Your task to perform on an android device: open a new tab in the chrome app Image 0: 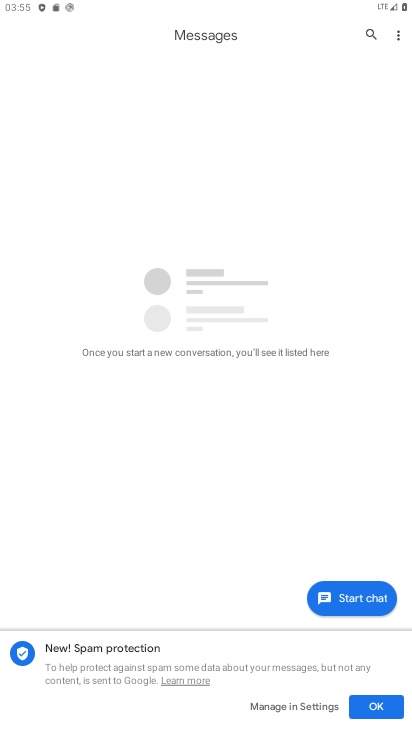
Step 0: press home button
Your task to perform on an android device: open a new tab in the chrome app Image 1: 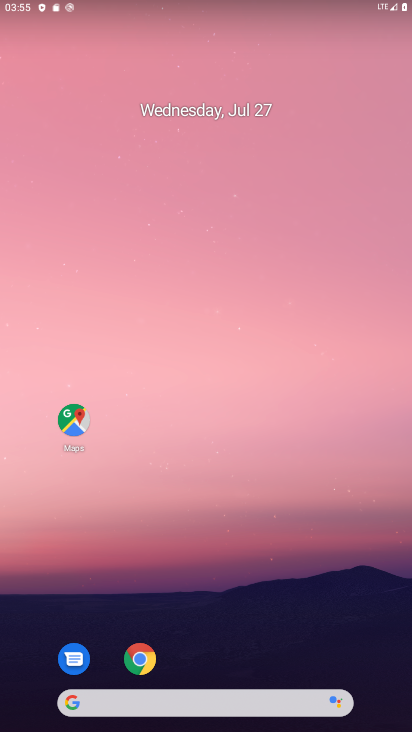
Step 1: click (148, 664)
Your task to perform on an android device: open a new tab in the chrome app Image 2: 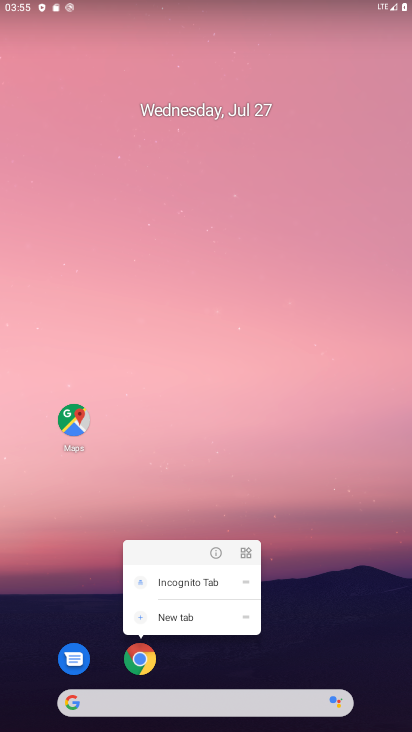
Step 2: click (148, 663)
Your task to perform on an android device: open a new tab in the chrome app Image 3: 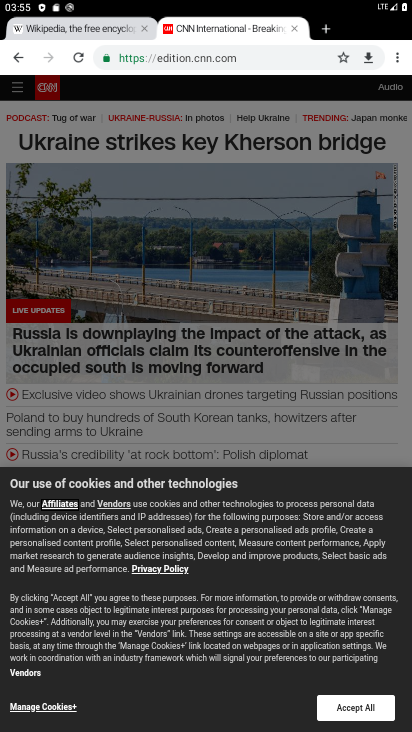
Step 3: click (396, 57)
Your task to perform on an android device: open a new tab in the chrome app Image 4: 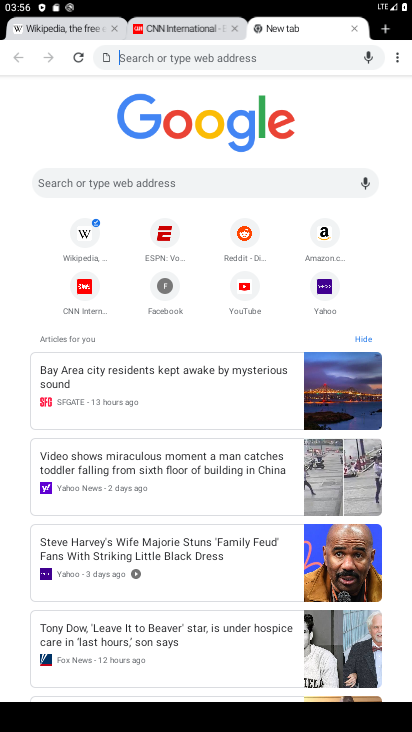
Step 4: task complete